Your task to perform on an android device: Open Yahoo.com Image 0: 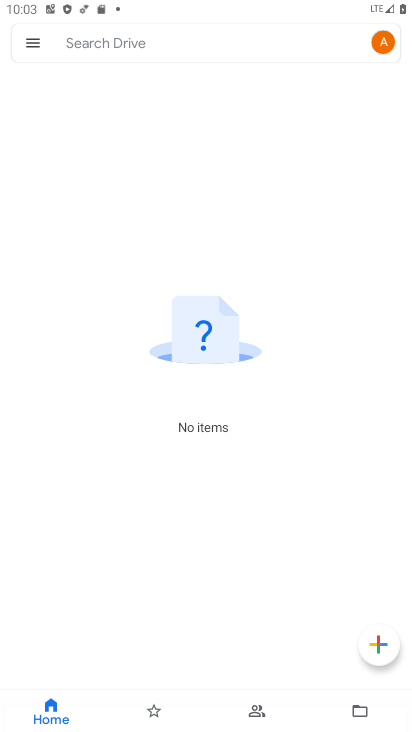
Step 0: press home button
Your task to perform on an android device: Open Yahoo.com Image 1: 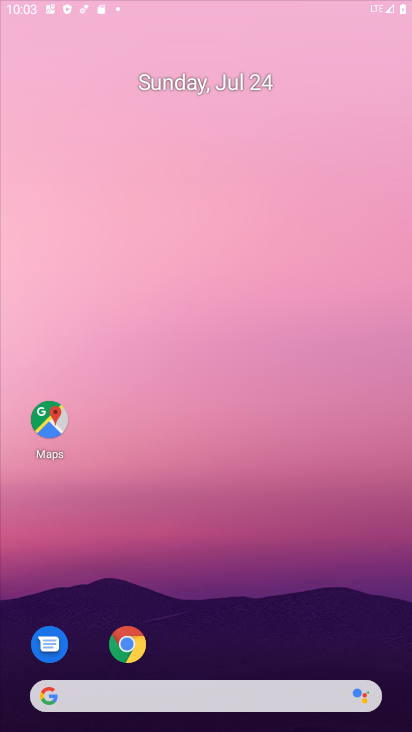
Step 1: drag from (6, 710) to (392, 98)
Your task to perform on an android device: Open Yahoo.com Image 2: 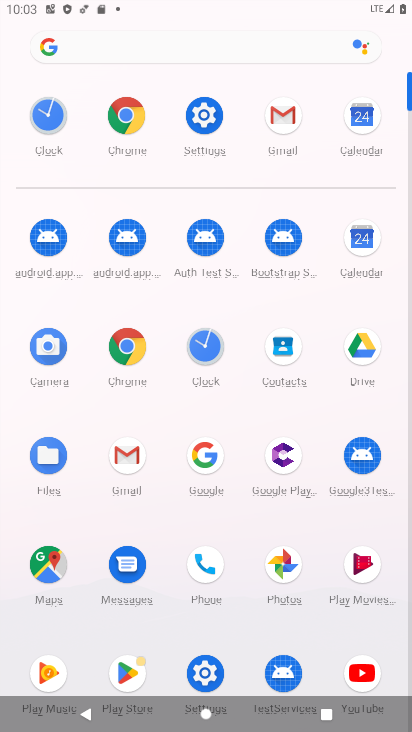
Step 2: click (131, 129)
Your task to perform on an android device: Open Yahoo.com Image 3: 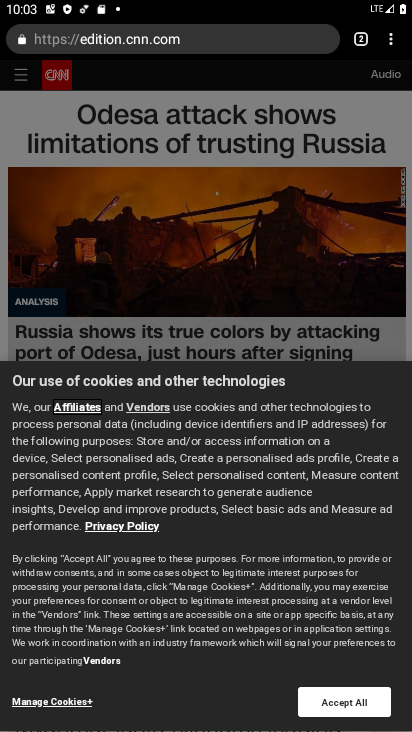
Step 3: click (360, 49)
Your task to perform on an android device: Open Yahoo.com Image 4: 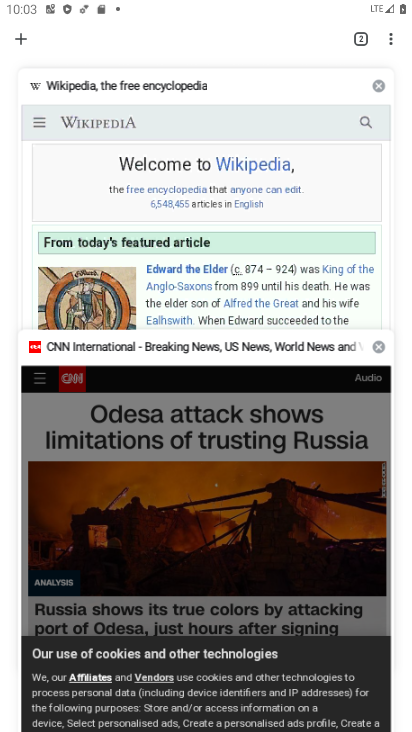
Step 4: click (21, 37)
Your task to perform on an android device: Open Yahoo.com Image 5: 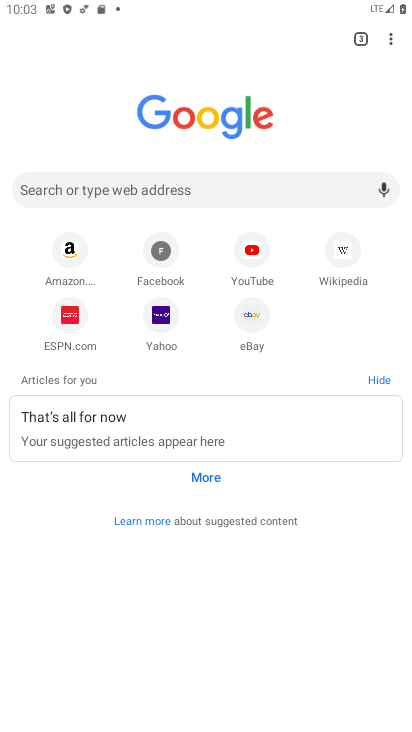
Step 5: click (158, 324)
Your task to perform on an android device: Open Yahoo.com Image 6: 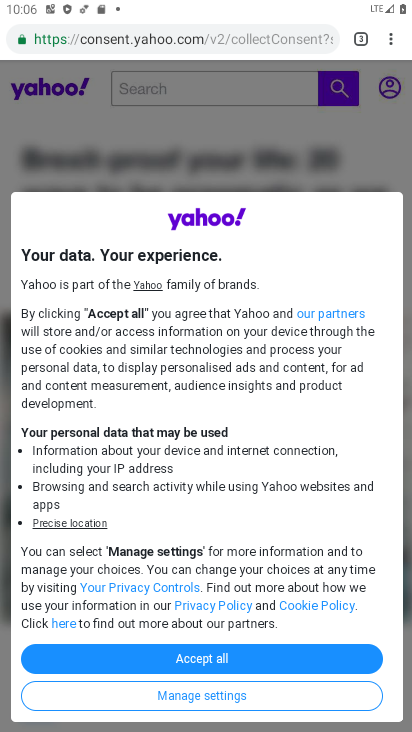
Step 6: task complete